Your task to perform on an android device: Go to sound settings Image 0: 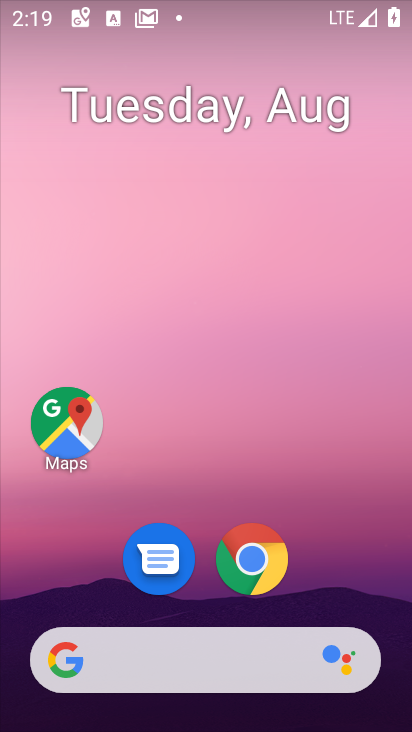
Step 0: drag from (199, 505) to (143, 135)
Your task to perform on an android device: Go to sound settings Image 1: 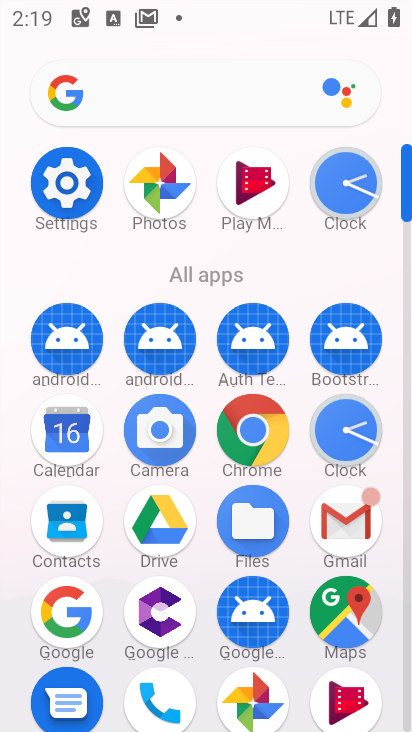
Step 1: click (55, 174)
Your task to perform on an android device: Go to sound settings Image 2: 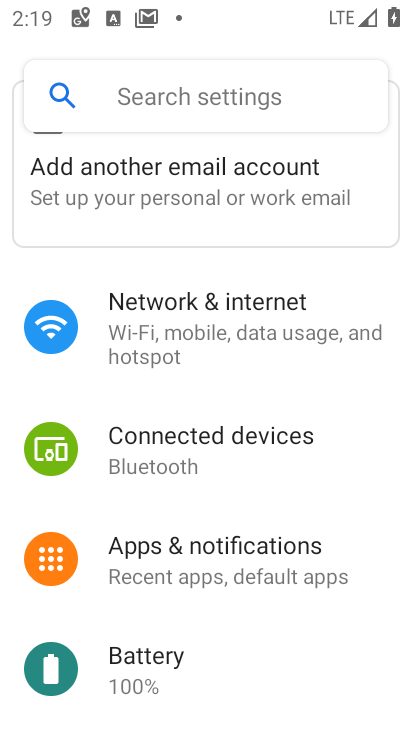
Step 2: drag from (150, 611) to (152, 298)
Your task to perform on an android device: Go to sound settings Image 3: 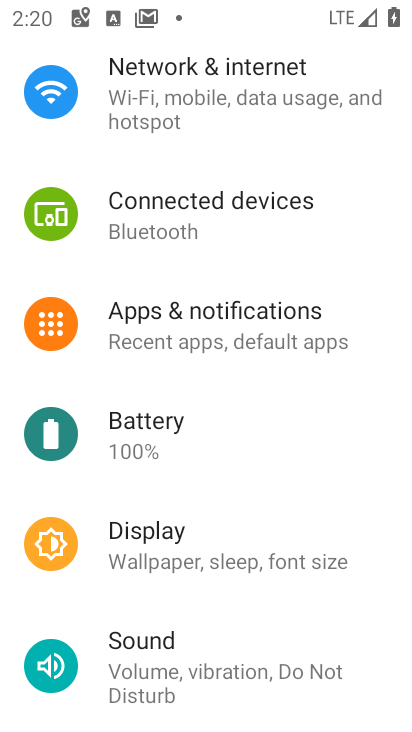
Step 3: click (202, 653)
Your task to perform on an android device: Go to sound settings Image 4: 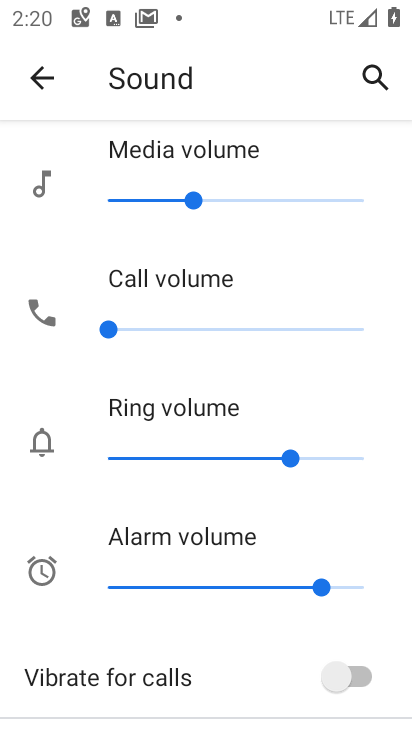
Step 4: task complete